Your task to perform on an android device: turn off javascript in the chrome app Image 0: 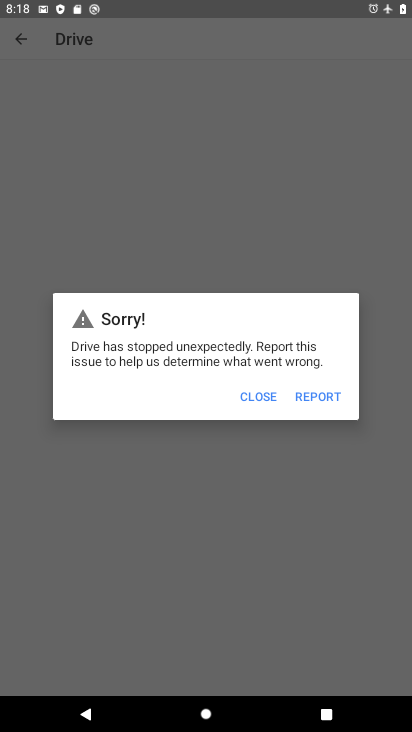
Step 0: press home button
Your task to perform on an android device: turn off javascript in the chrome app Image 1: 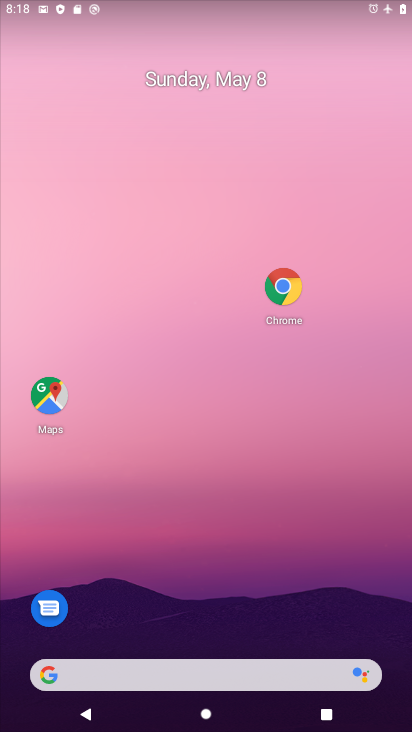
Step 1: drag from (153, 678) to (245, 153)
Your task to perform on an android device: turn off javascript in the chrome app Image 2: 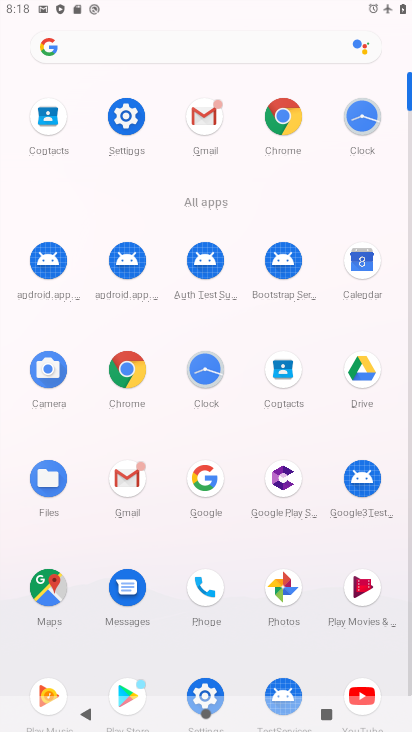
Step 2: click (282, 116)
Your task to perform on an android device: turn off javascript in the chrome app Image 3: 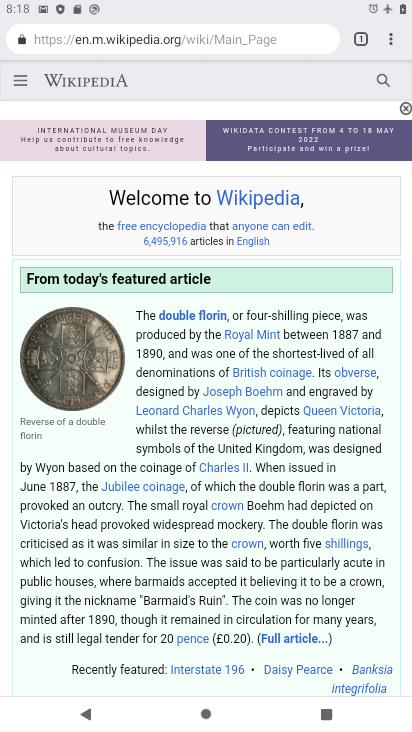
Step 3: drag from (389, 44) to (276, 440)
Your task to perform on an android device: turn off javascript in the chrome app Image 4: 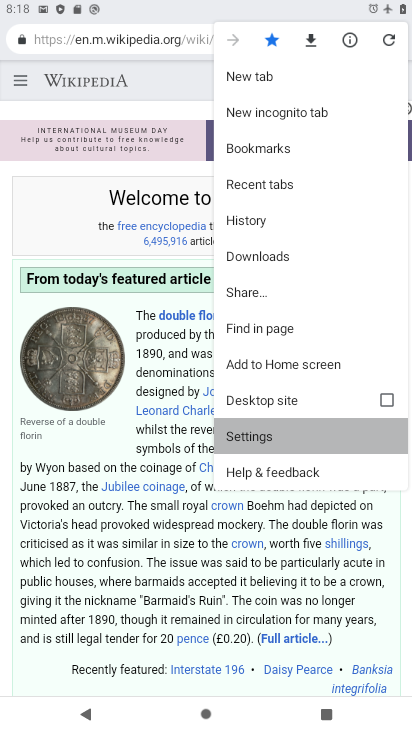
Step 4: click (276, 440)
Your task to perform on an android device: turn off javascript in the chrome app Image 5: 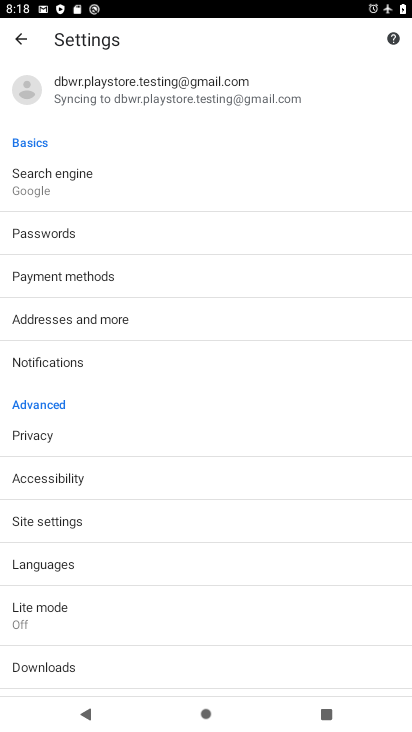
Step 5: click (58, 523)
Your task to perform on an android device: turn off javascript in the chrome app Image 6: 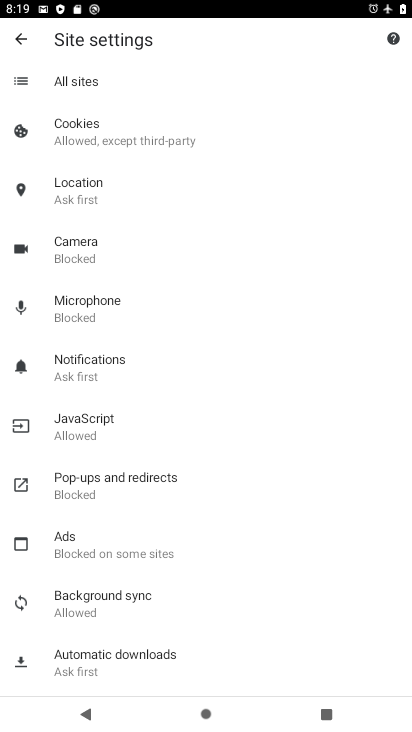
Step 6: click (81, 426)
Your task to perform on an android device: turn off javascript in the chrome app Image 7: 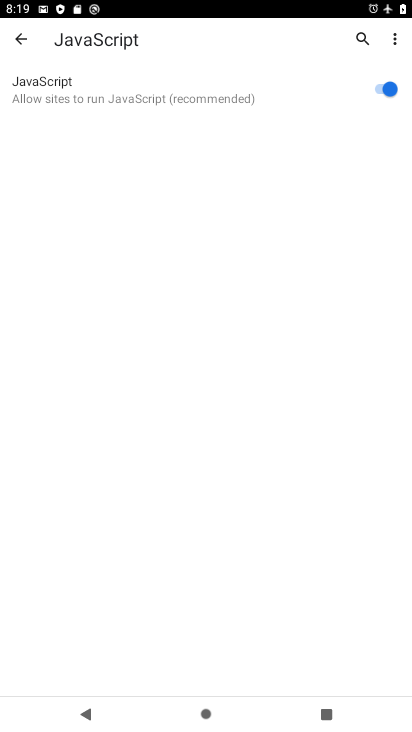
Step 7: click (385, 90)
Your task to perform on an android device: turn off javascript in the chrome app Image 8: 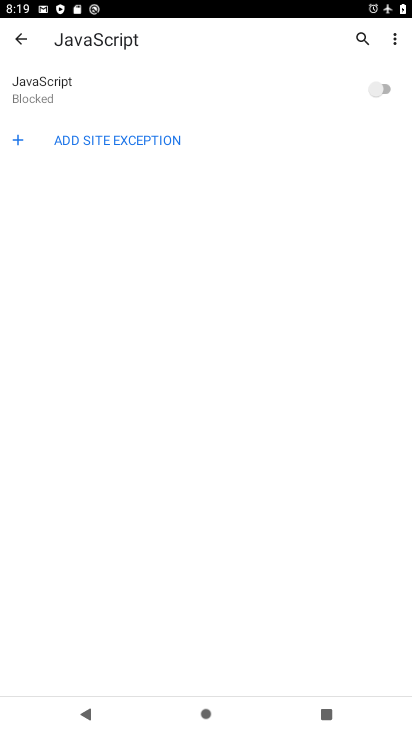
Step 8: task complete